Your task to perform on an android device: Open Android settings Image 0: 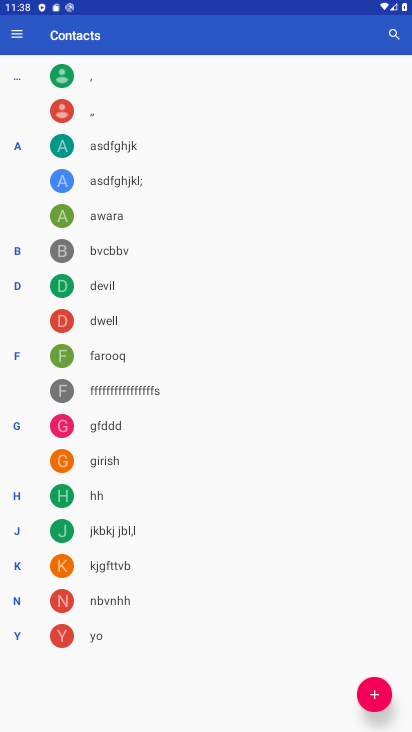
Step 0: press home button
Your task to perform on an android device: Open Android settings Image 1: 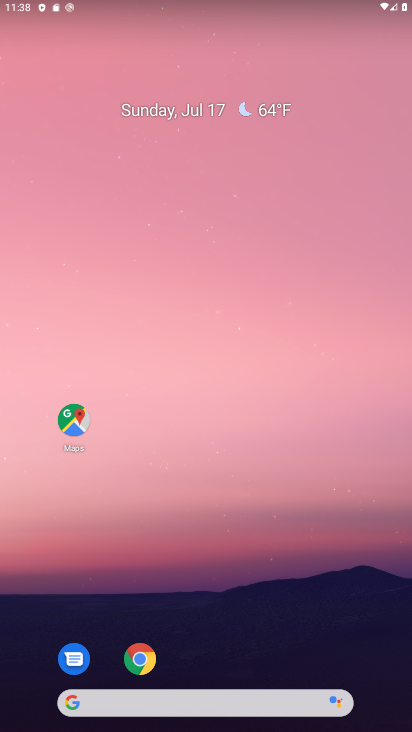
Step 1: drag from (214, 596) to (198, 209)
Your task to perform on an android device: Open Android settings Image 2: 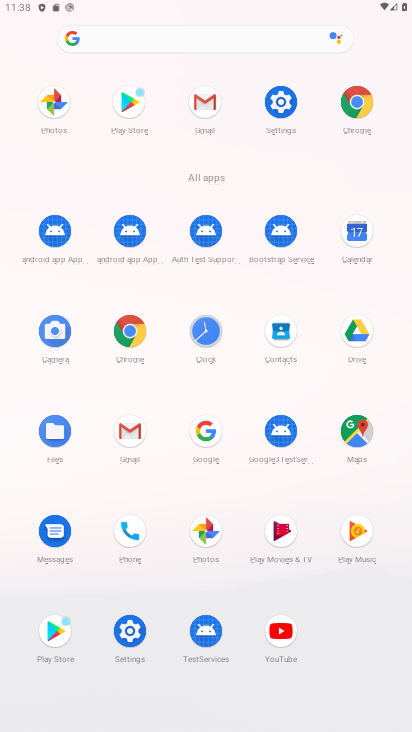
Step 2: click (275, 99)
Your task to perform on an android device: Open Android settings Image 3: 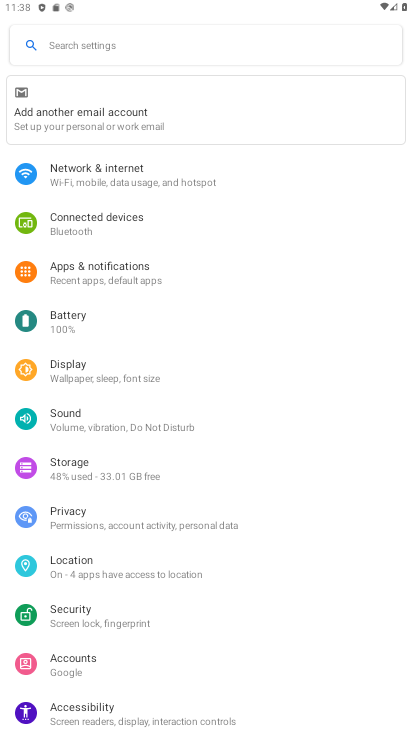
Step 3: click (81, 482)
Your task to perform on an android device: Open Android settings Image 4: 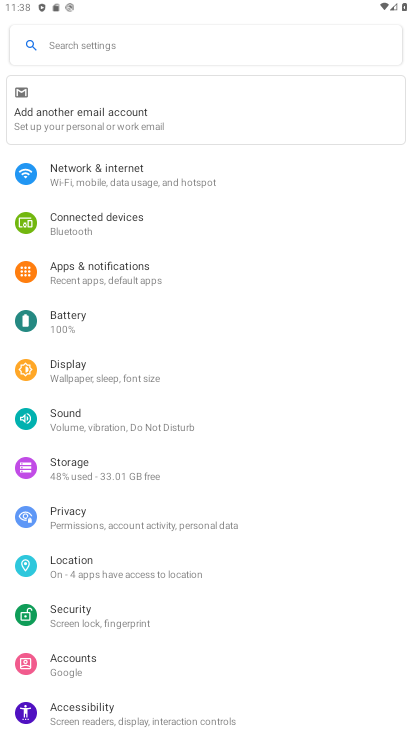
Step 4: task complete